Your task to perform on an android device: Search for seafood restaurants on Google Maps Image 0: 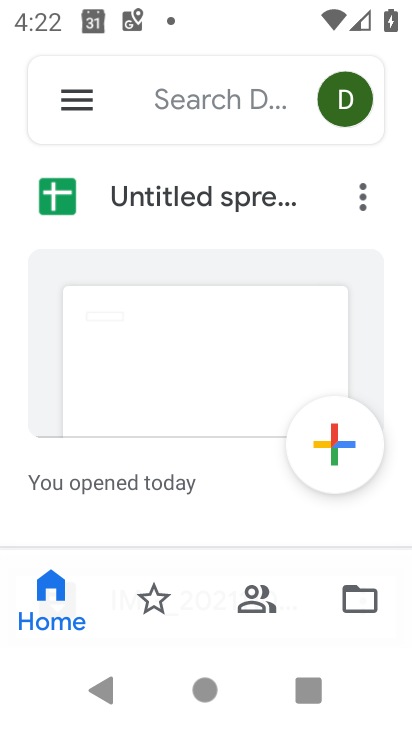
Step 0: press home button
Your task to perform on an android device: Search for seafood restaurants on Google Maps Image 1: 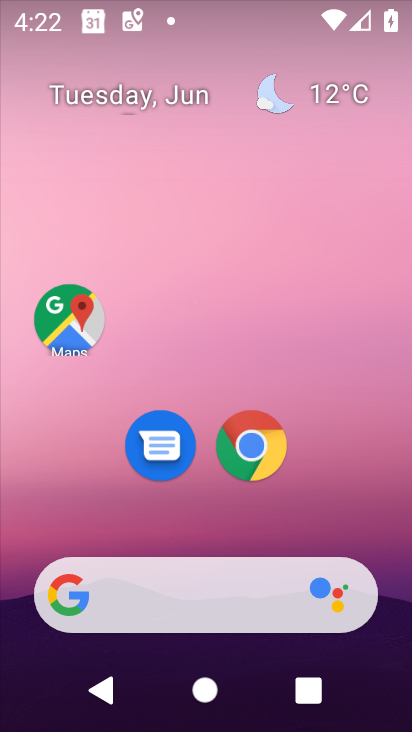
Step 1: drag from (345, 467) to (250, 12)
Your task to perform on an android device: Search for seafood restaurants on Google Maps Image 2: 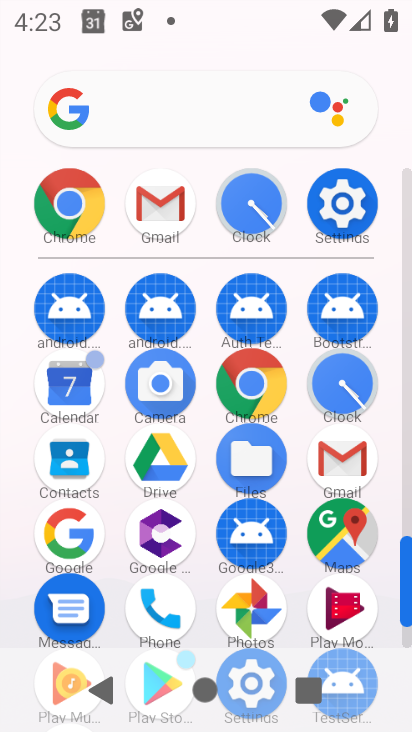
Step 2: click (347, 533)
Your task to perform on an android device: Search for seafood restaurants on Google Maps Image 3: 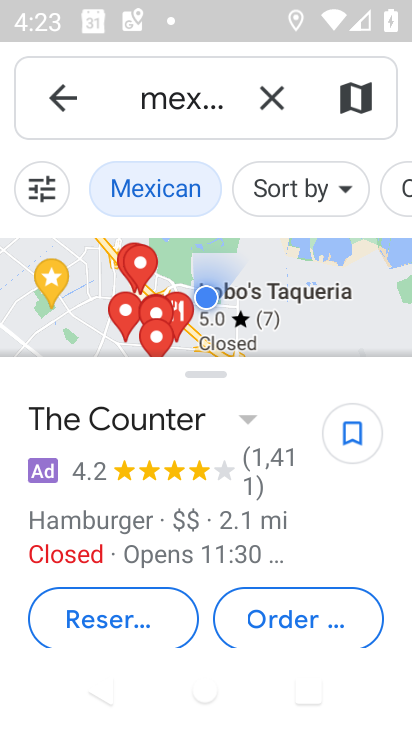
Step 3: click (282, 100)
Your task to perform on an android device: Search for seafood restaurants on Google Maps Image 4: 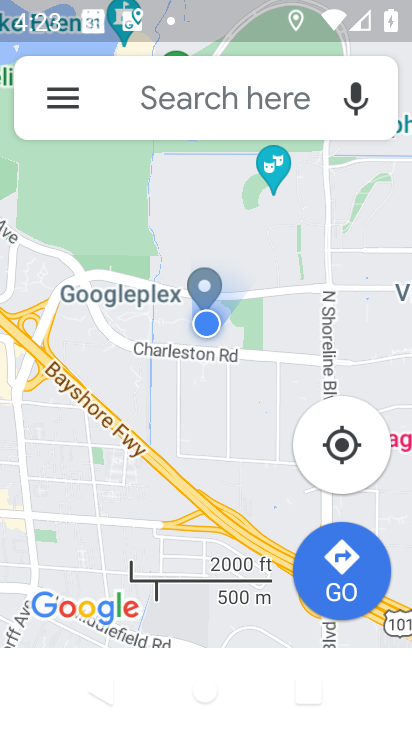
Step 4: click (260, 80)
Your task to perform on an android device: Search for seafood restaurants on Google Maps Image 5: 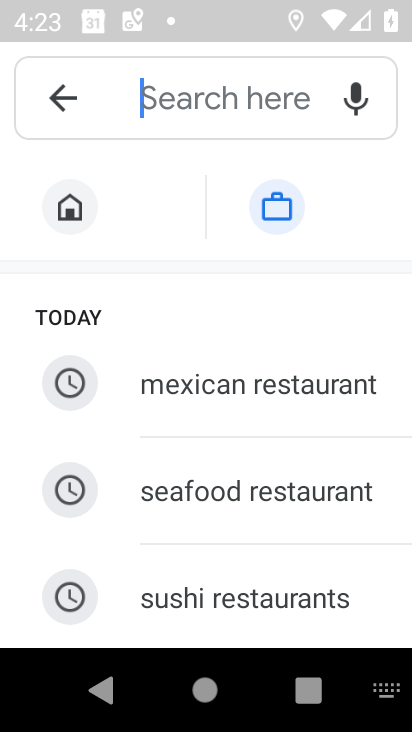
Step 5: click (228, 483)
Your task to perform on an android device: Search for seafood restaurants on Google Maps Image 6: 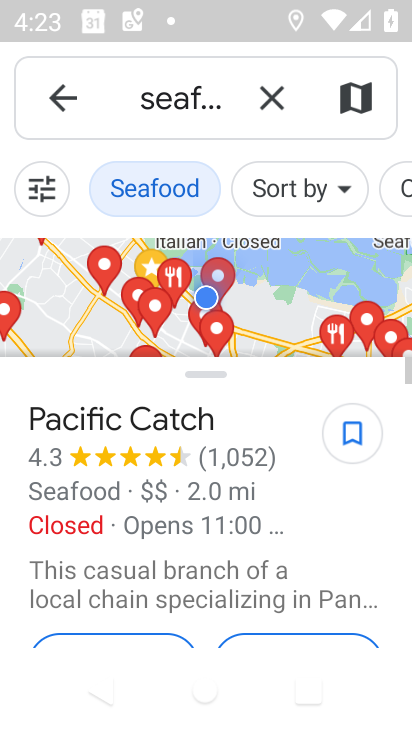
Step 6: task complete